Your task to perform on an android device: Set the phone to "Do not disturb". Image 0: 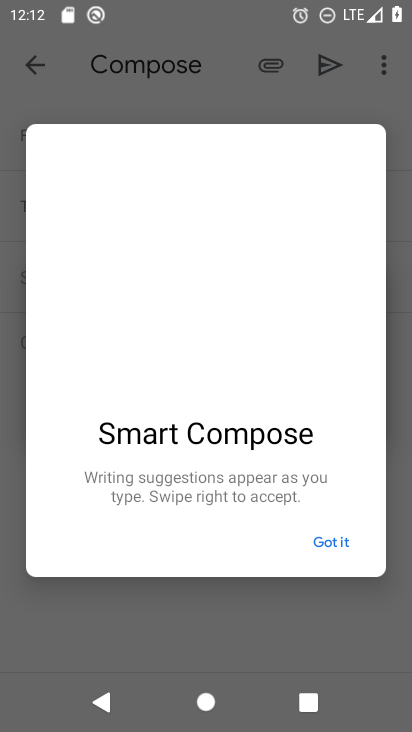
Step 0: press home button
Your task to perform on an android device: Set the phone to "Do not disturb". Image 1: 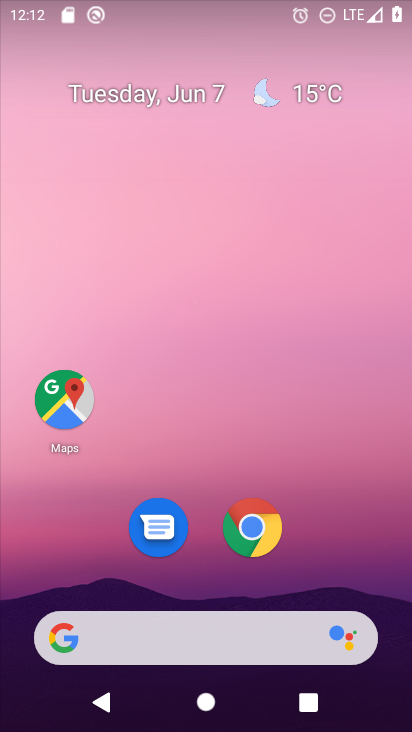
Step 1: drag from (328, 557) to (328, 92)
Your task to perform on an android device: Set the phone to "Do not disturb". Image 2: 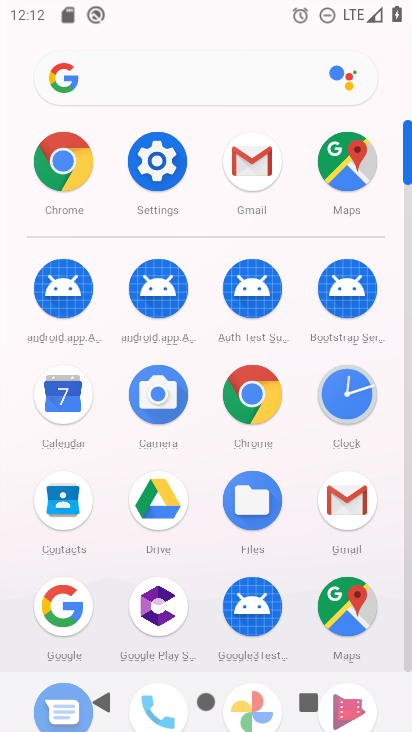
Step 2: drag from (209, 549) to (208, 311)
Your task to perform on an android device: Set the phone to "Do not disturb". Image 3: 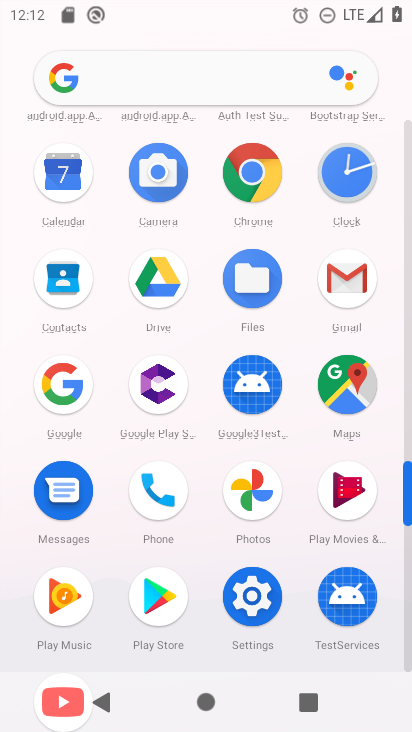
Step 3: click (248, 592)
Your task to perform on an android device: Set the phone to "Do not disturb". Image 4: 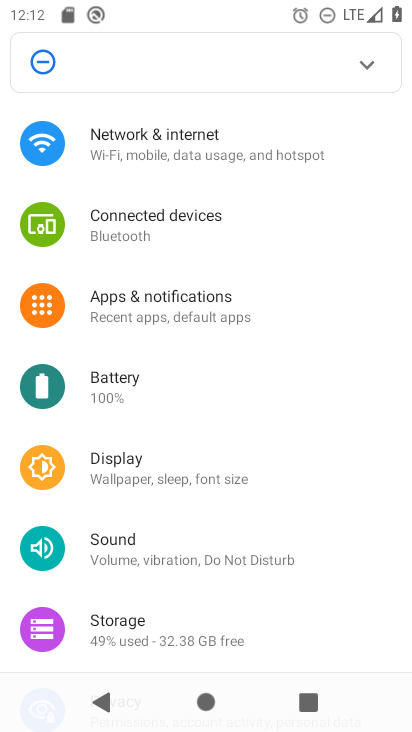
Step 4: drag from (293, 452) to (303, 319)
Your task to perform on an android device: Set the phone to "Do not disturb". Image 5: 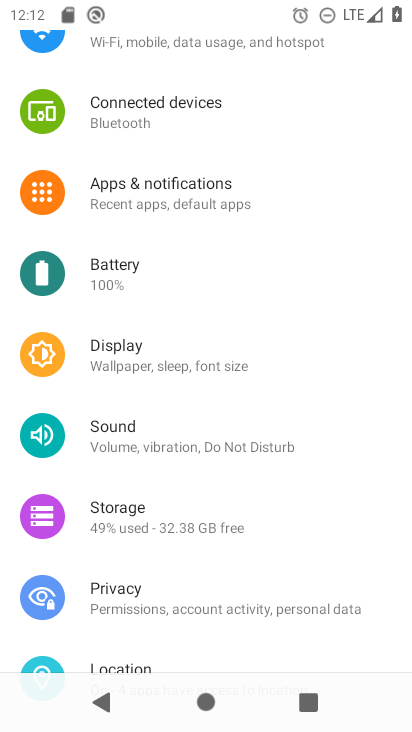
Step 5: drag from (318, 507) to (329, 365)
Your task to perform on an android device: Set the phone to "Do not disturb". Image 6: 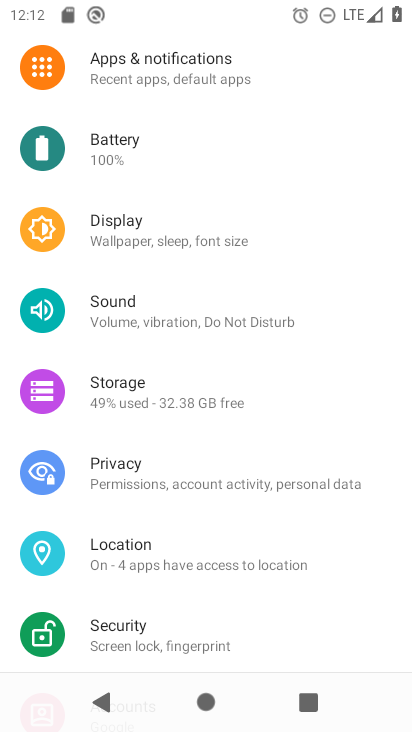
Step 6: drag from (328, 546) to (342, 398)
Your task to perform on an android device: Set the phone to "Do not disturb". Image 7: 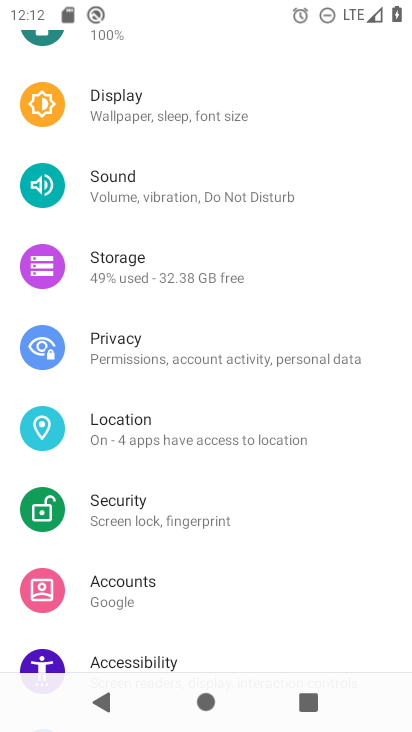
Step 7: drag from (342, 221) to (338, 446)
Your task to perform on an android device: Set the phone to "Do not disturb". Image 8: 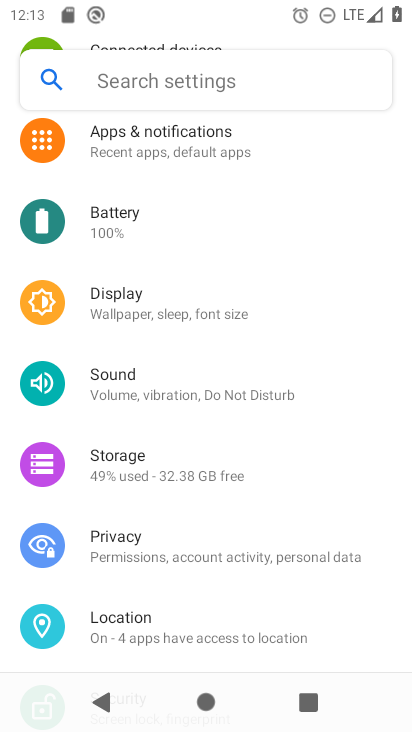
Step 8: click (246, 399)
Your task to perform on an android device: Set the phone to "Do not disturb". Image 9: 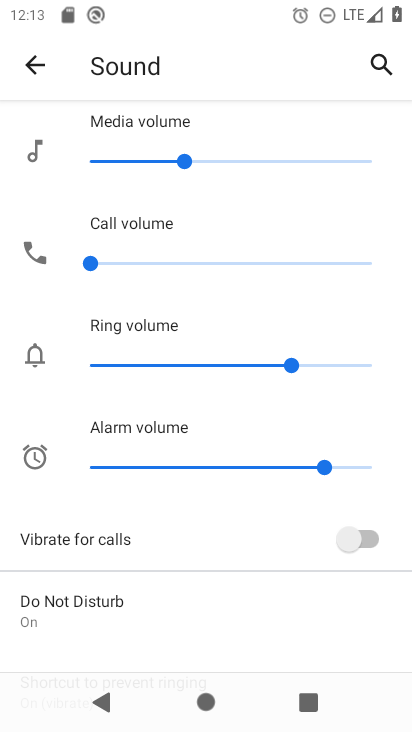
Step 9: drag from (264, 531) to (256, 312)
Your task to perform on an android device: Set the phone to "Do not disturb". Image 10: 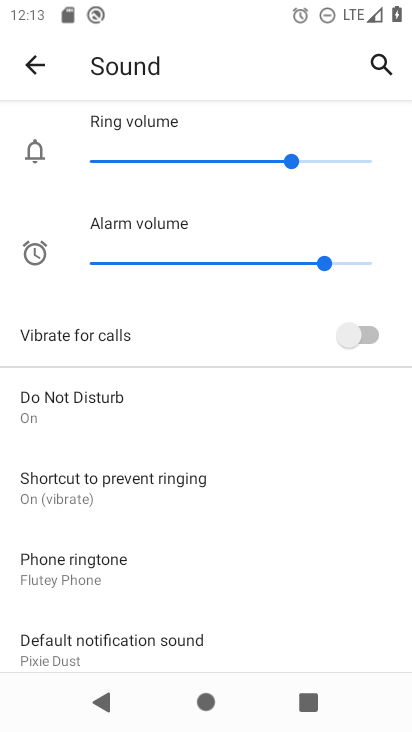
Step 10: click (102, 406)
Your task to perform on an android device: Set the phone to "Do not disturb". Image 11: 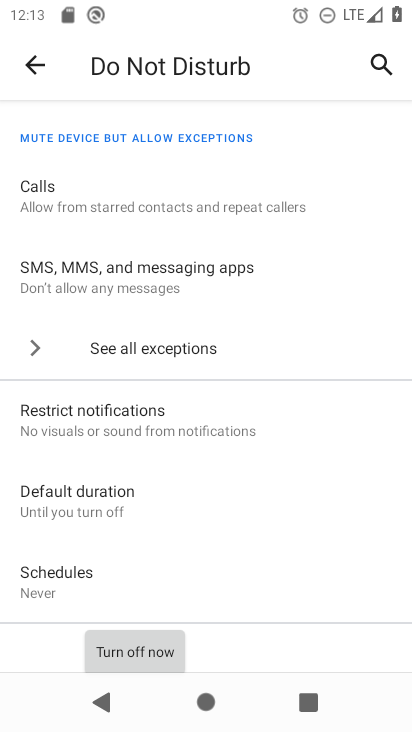
Step 11: task complete